Your task to perform on an android device: Open network settings Image 0: 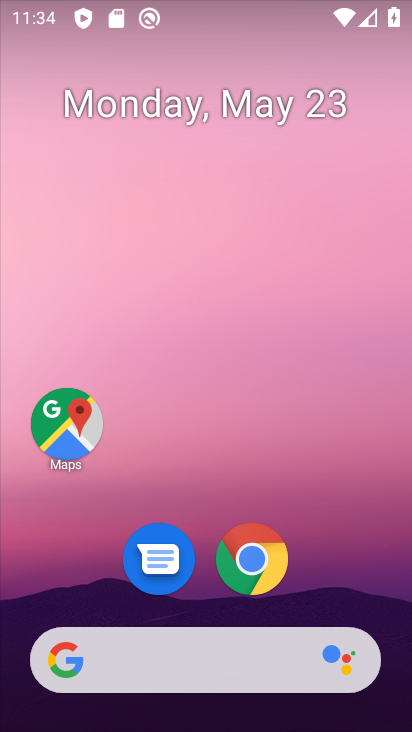
Step 0: drag from (388, 659) to (293, 100)
Your task to perform on an android device: Open network settings Image 1: 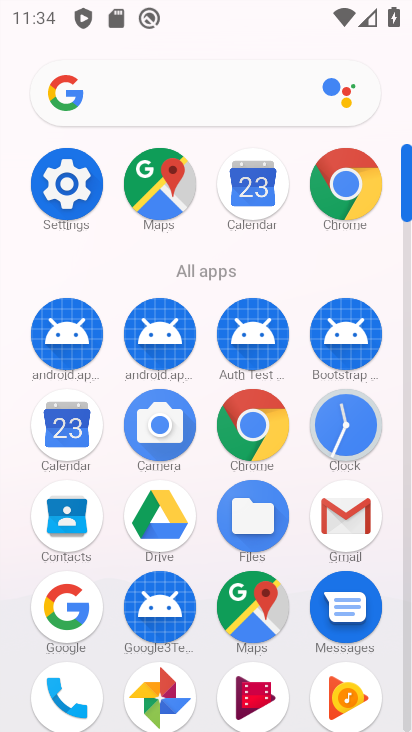
Step 1: click (65, 196)
Your task to perform on an android device: Open network settings Image 2: 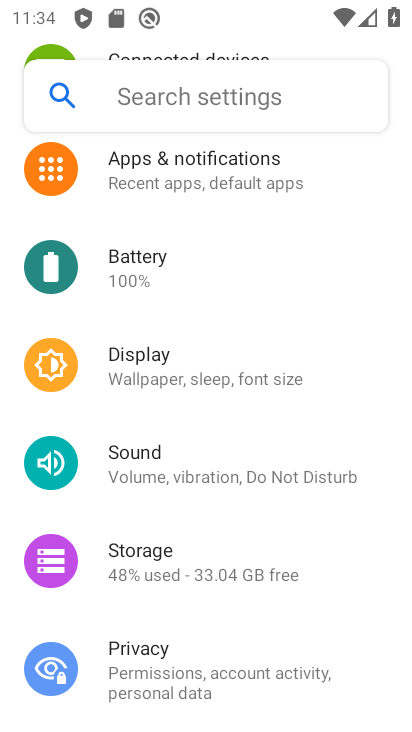
Step 2: drag from (381, 192) to (406, 678)
Your task to perform on an android device: Open network settings Image 3: 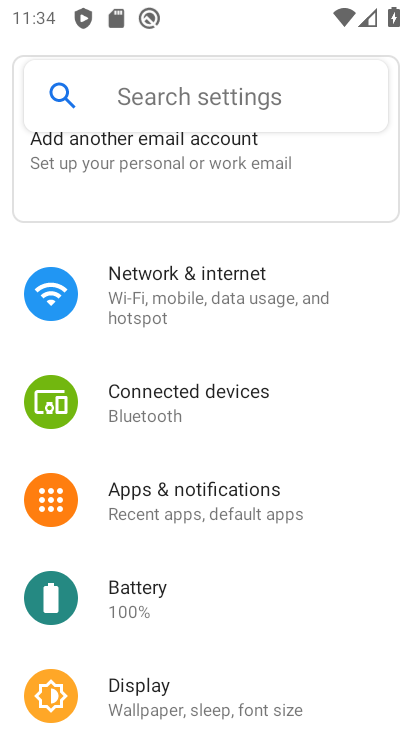
Step 3: click (153, 301)
Your task to perform on an android device: Open network settings Image 4: 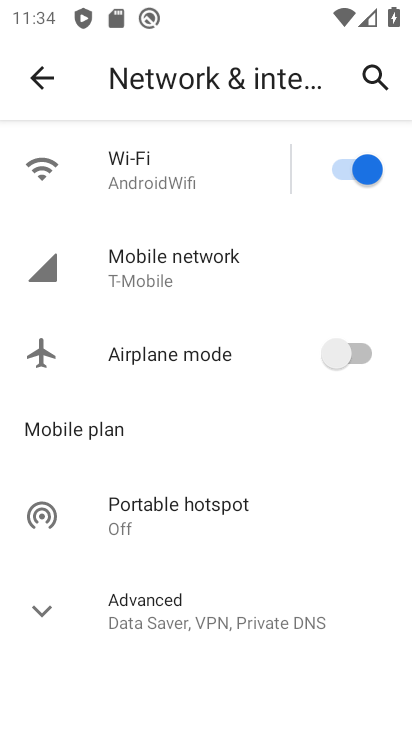
Step 4: click (144, 261)
Your task to perform on an android device: Open network settings Image 5: 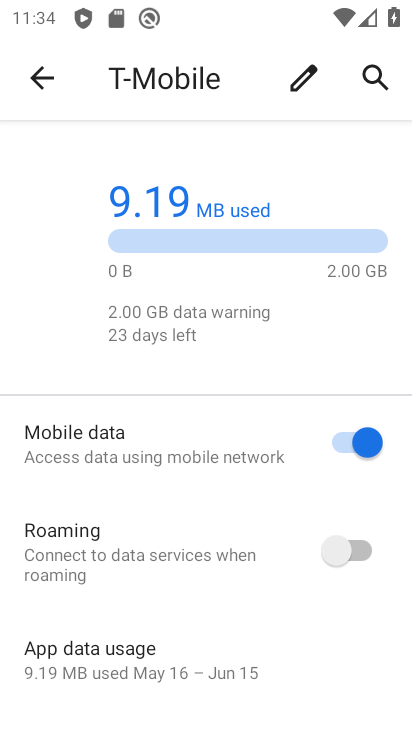
Step 5: task complete